Your task to perform on an android device: Is it going to rain tomorrow? Image 0: 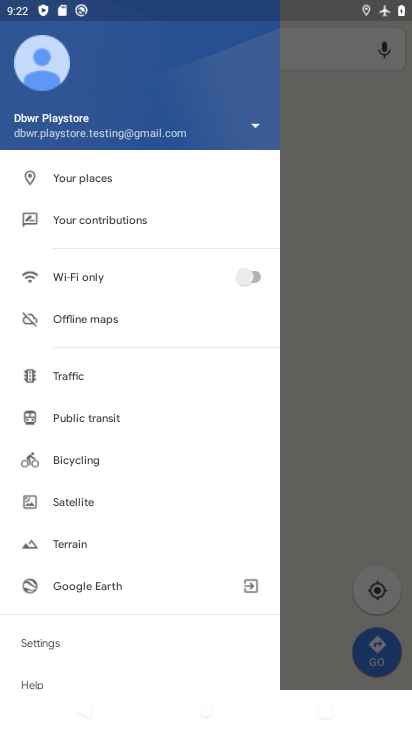
Step 0: press home button
Your task to perform on an android device: Is it going to rain tomorrow? Image 1: 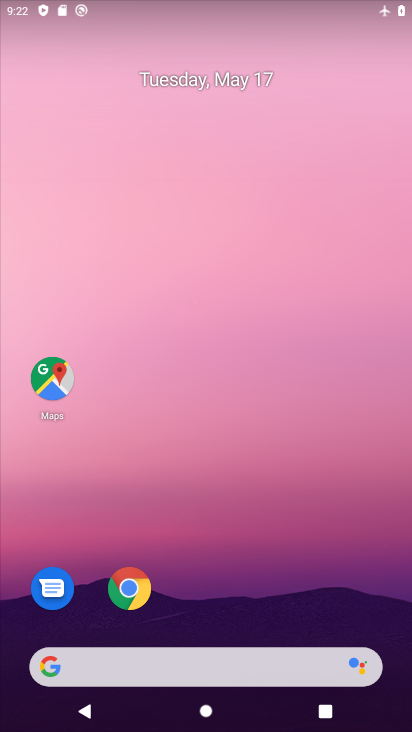
Step 1: drag from (223, 717) to (231, 132)
Your task to perform on an android device: Is it going to rain tomorrow? Image 2: 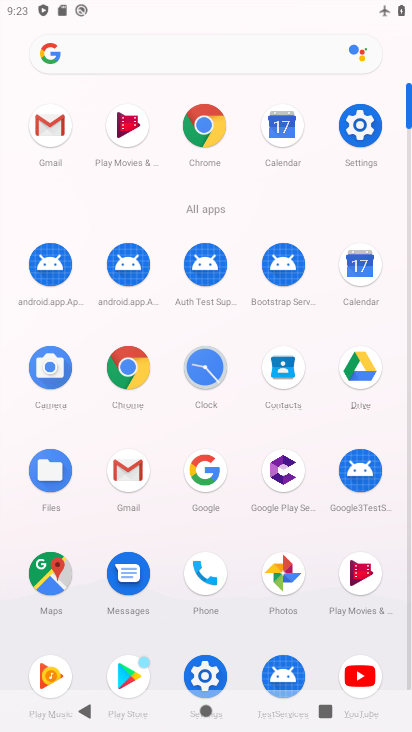
Step 2: click (199, 469)
Your task to perform on an android device: Is it going to rain tomorrow? Image 3: 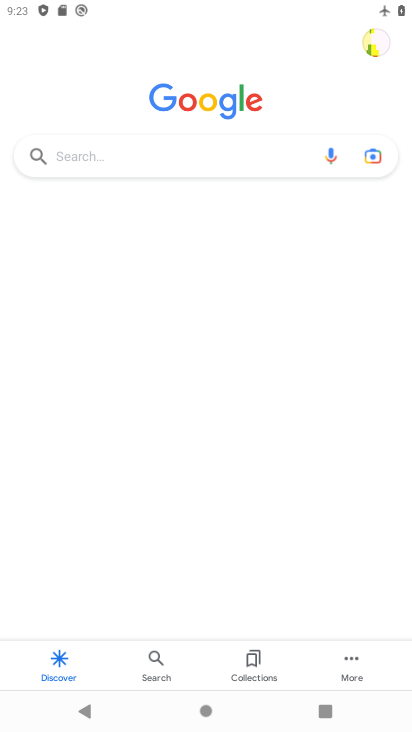
Step 3: click (156, 154)
Your task to perform on an android device: Is it going to rain tomorrow? Image 4: 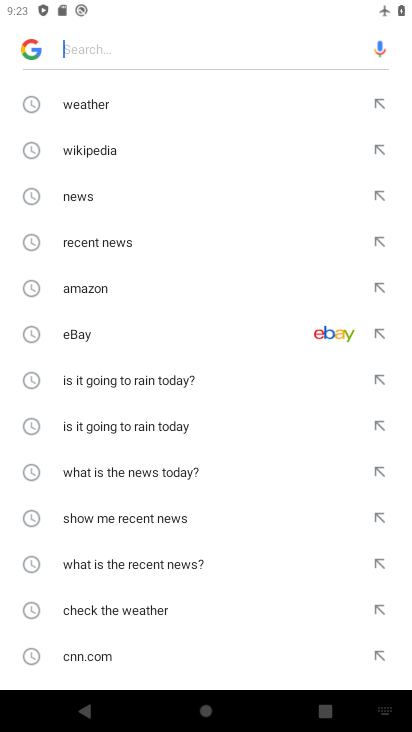
Step 4: click (82, 100)
Your task to perform on an android device: Is it going to rain tomorrow? Image 5: 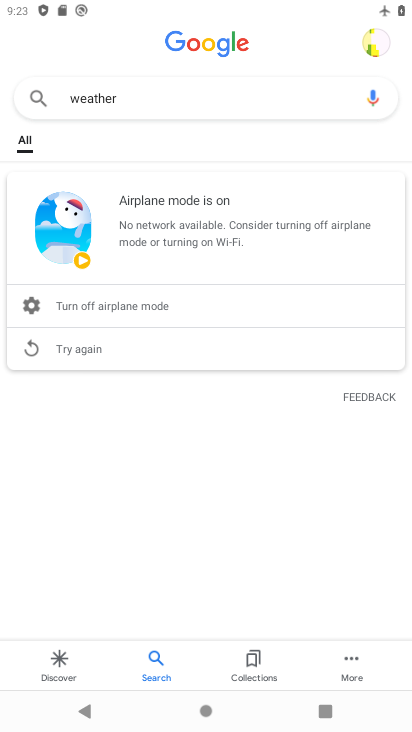
Step 5: task complete